Your task to perform on an android device: turn vacation reply on in the gmail app Image 0: 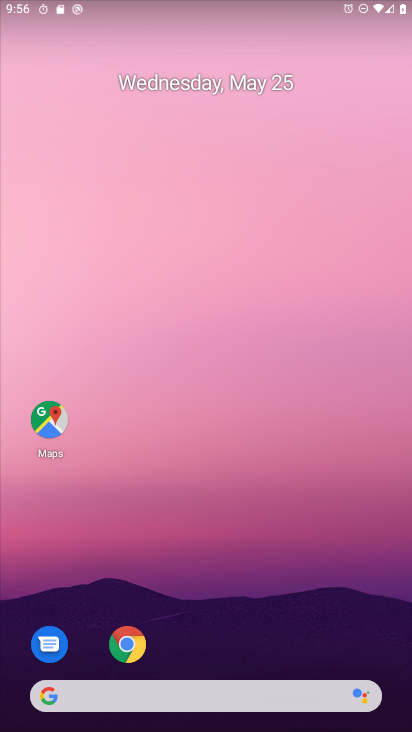
Step 0: drag from (332, 617) to (266, 0)
Your task to perform on an android device: turn vacation reply on in the gmail app Image 1: 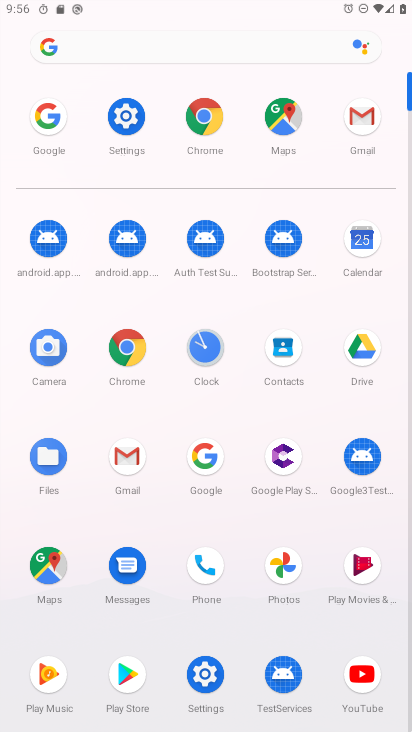
Step 1: click (136, 455)
Your task to perform on an android device: turn vacation reply on in the gmail app Image 2: 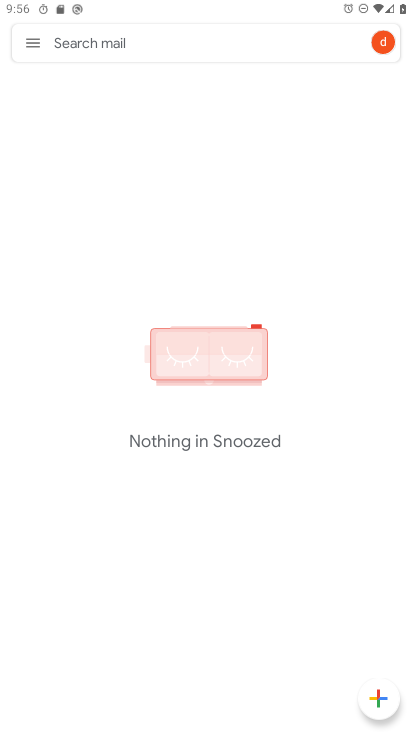
Step 2: click (41, 34)
Your task to perform on an android device: turn vacation reply on in the gmail app Image 3: 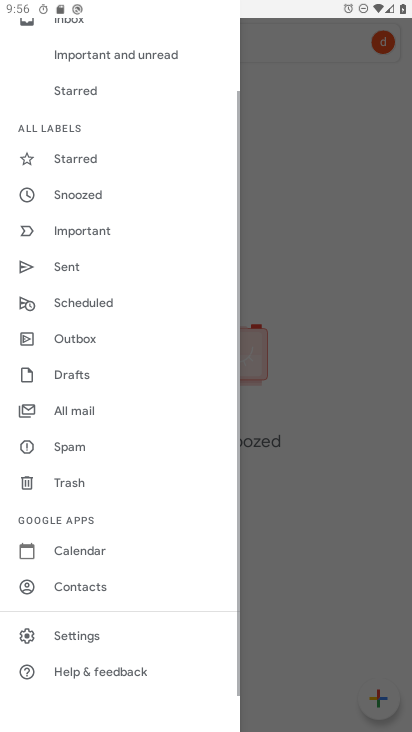
Step 3: click (131, 638)
Your task to perform on an android device: turn vacation reply on in the gmail app Image 4: 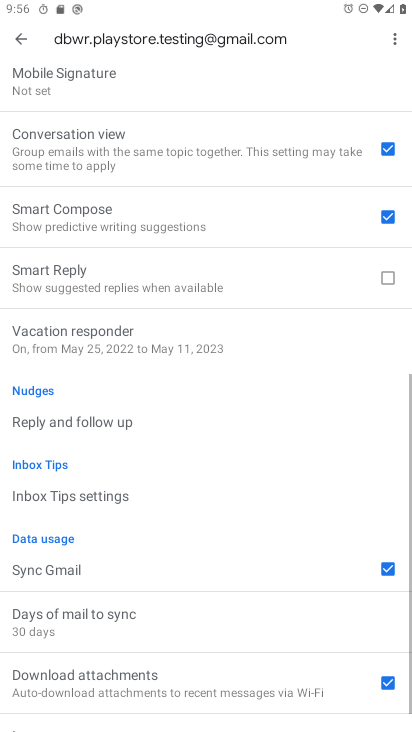
Step 4: drag from (105, 668) to (190, 237)
Your task to perform on an android device: turn vacation reply on in the gmail app Image 5: 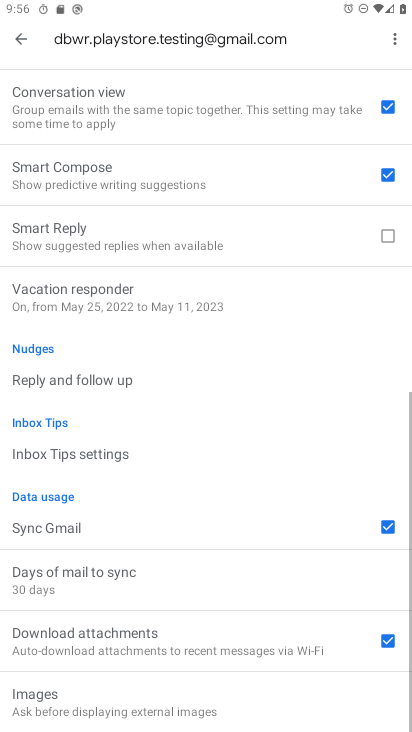
Step 5: click (50, 329)
Your task to perform on an android device: turn vacation reply on in the gmail app Image 6: 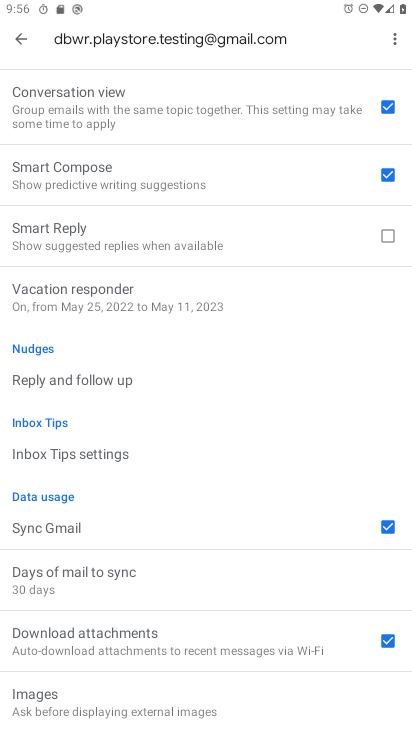
Step 6: click (171, 306)
Your task to perform on an android device: turn vacation reply on in the gmail app Image 7: 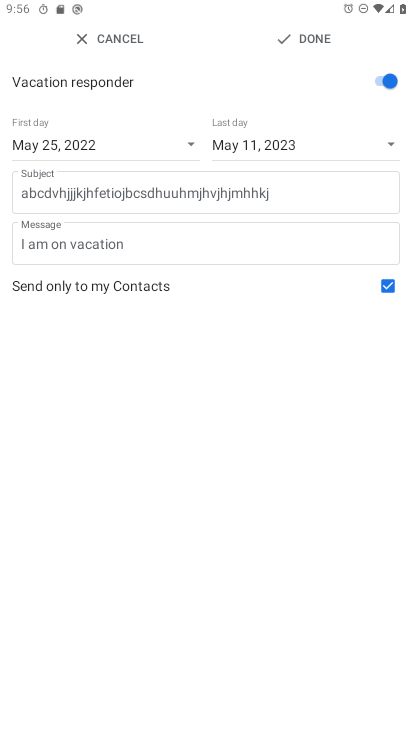
Step 7: task complete